Your task to perform on an android device: Open Android settings Image 0: 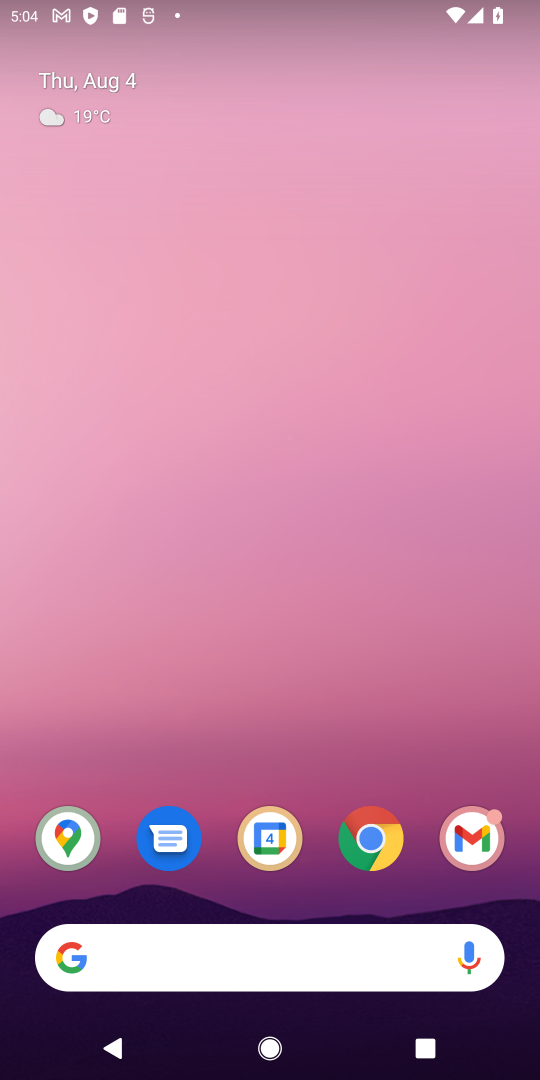
Step 0: drag from (163, 865) to (266, 82)
Your task to perform on an android device: Open Android settings Image 1: 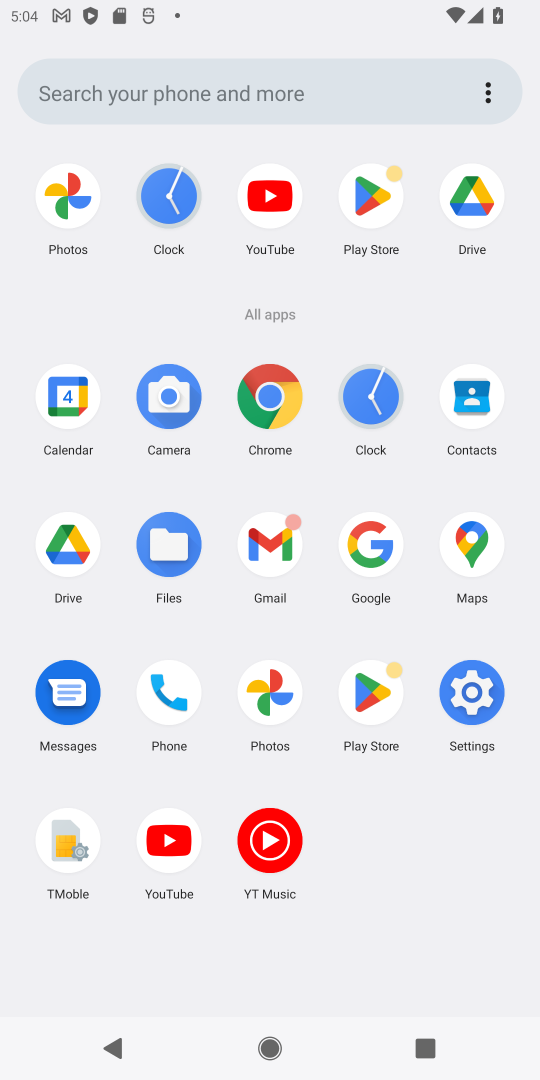
Step 1: click (472, 700)
Your task to perform on an android device: Open Android settings Image 2: 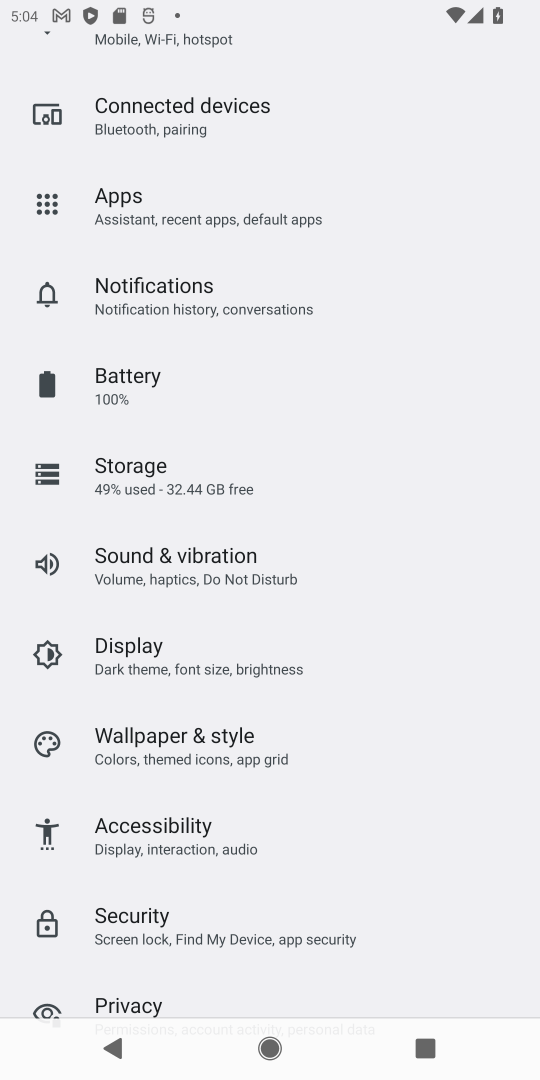
Step 2: task complete